Your task to perform on an android device: toggle notification dots Image 0: 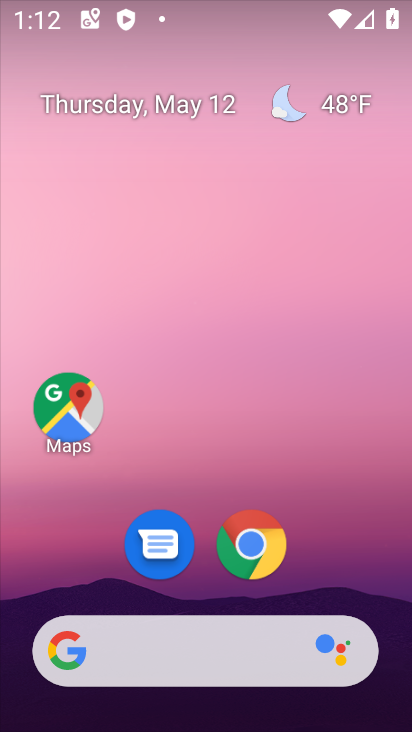
Step 0: drag from (325, 545) to (273, 0)
Your task to perform on an android device: toggle notification dots Image 1: 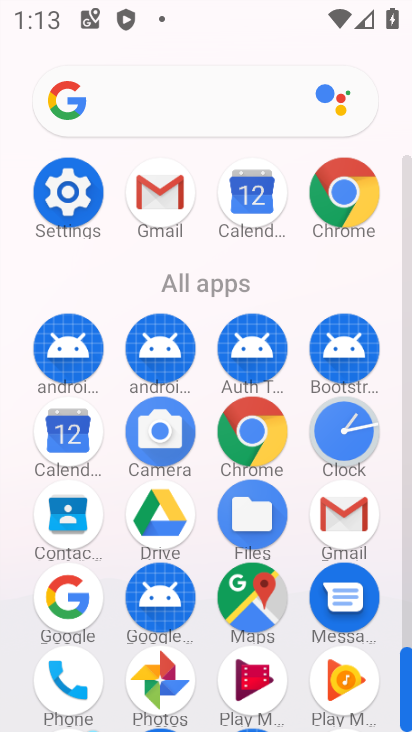
Step 1: drag from (31, 501) to (20, 238)
Your task to perform on an android device: toggle notification dots Image 2: 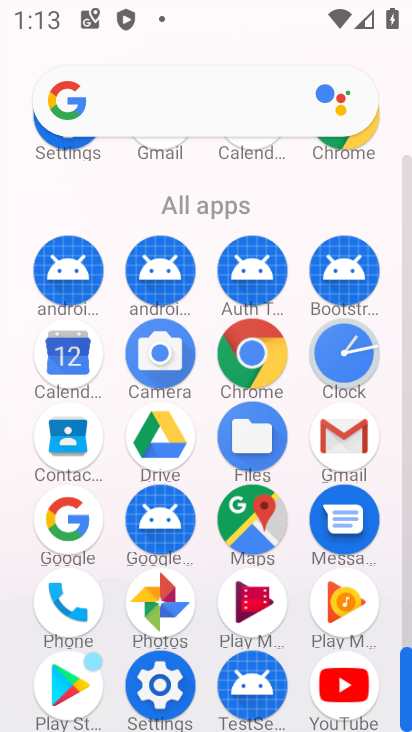
Step 2: drag from (26, 511) to (28, 244)
Your task to perform on an android device: toggle notification dots Image 3: 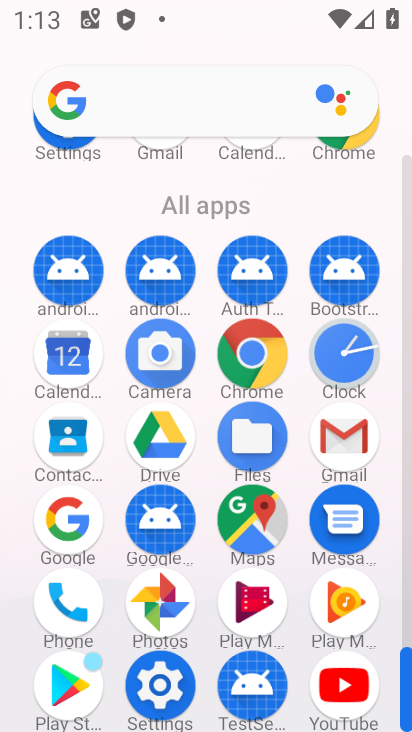
Step 3: click (158, 681)
Your task to perform on an android device: toggle notification dots Image 4: 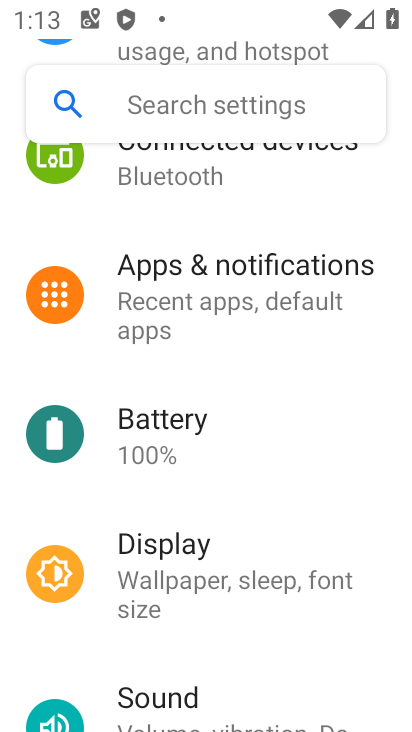
Step 4: drag from (293, 510) to (290, 189)
Your task to perform on an android device: toggle notification dots Image 5: 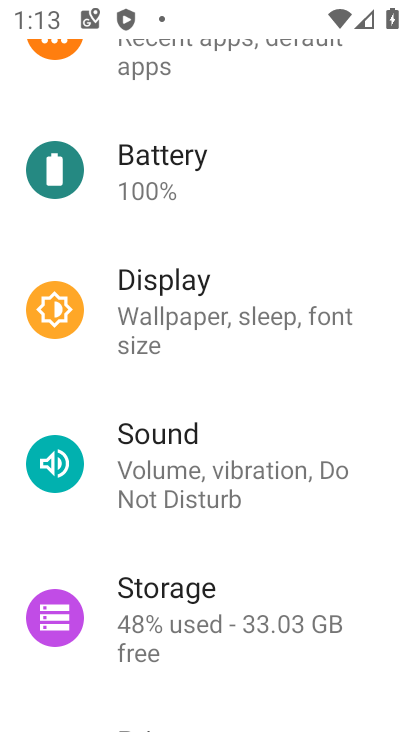
Step 5: drag from (290, 261) to (292, 439)
Your task to perform on an android device: toggle notification dots Image 6: 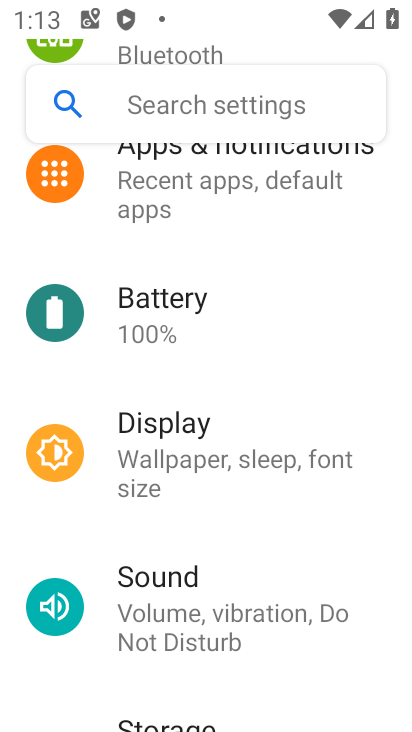
Step 6: click (279, 173)
Your task to perform on an android device: toggle notification dots Image 7: 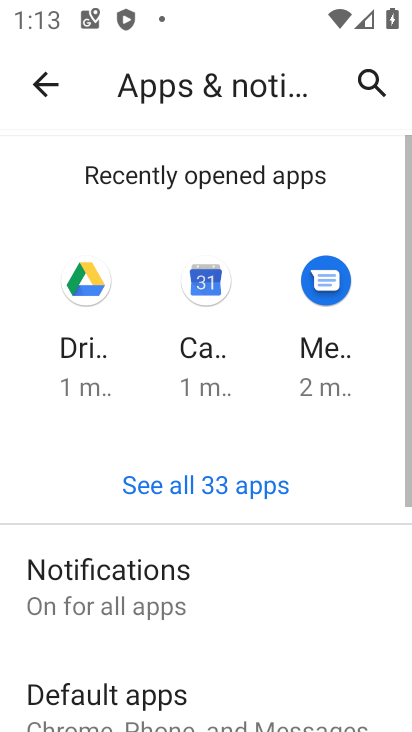
Step 7: click (188, 577)
Your task to perform on an android device: toggle notification dots Image 8: 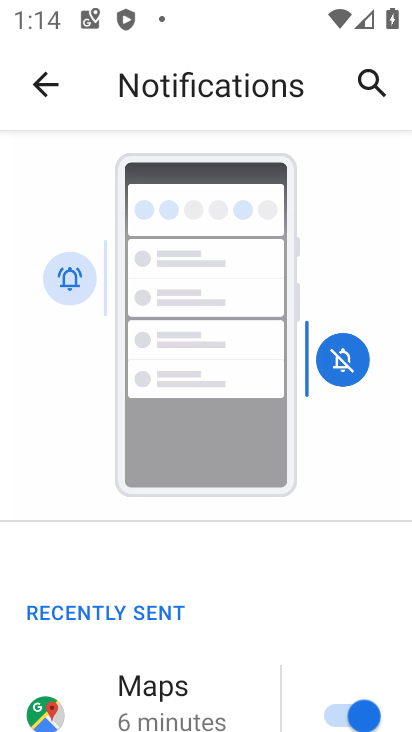
Step 8: drag from (227, 577) to (222, 95)
Your task to perform on an android device: toggle notification dots Image 9: 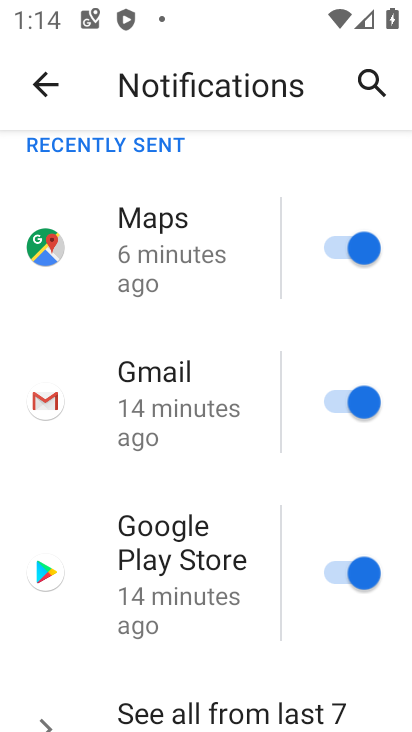
Step 9: drag from (157, 465) to (172, 293)
Your task to perform on an android device: toggle notification dots Image 10: 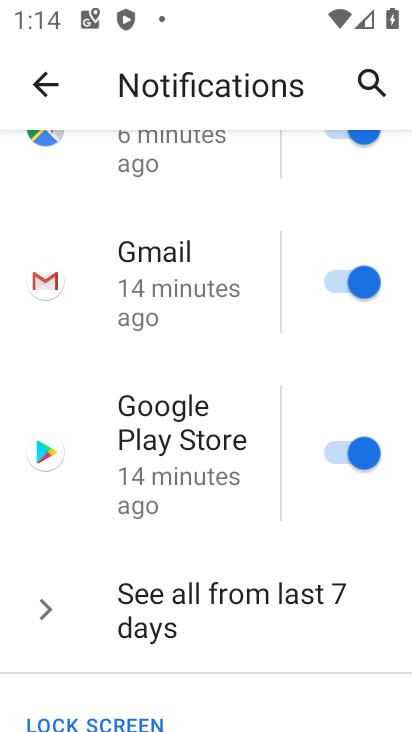
Step 10: drag from (176, 485) to (187, 177)
Your task to perform on an android device: toggle notification dots Image 11: 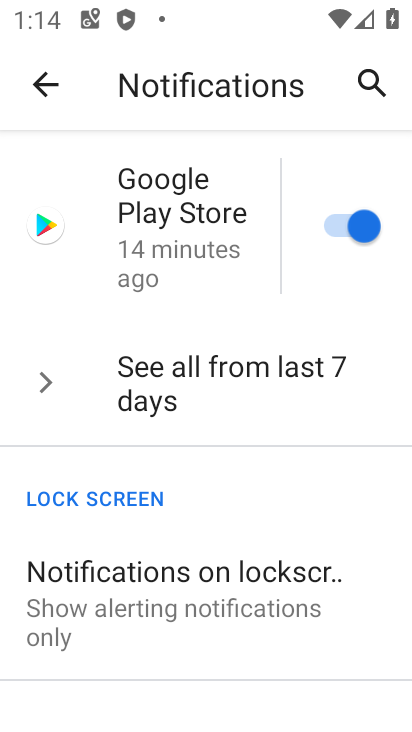
Step 11: drag from (194, 596) to (186, 116)
Your task to perform on an android device: toggle notification dots Image 12: 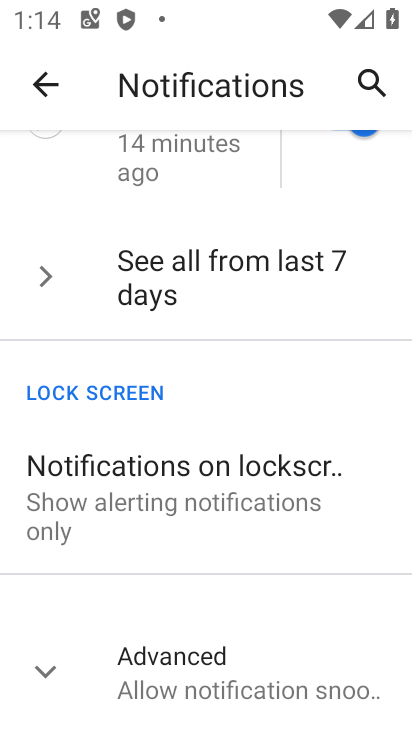
Step 12: click (53, 657)
Your task to perform on an android device: toggle notification dots Image 13: 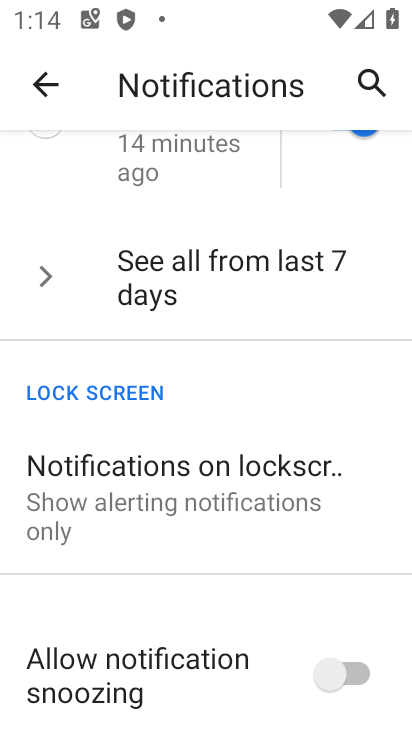
Step 13: drag from (179, 499) to (173, 199)
Your task to perform on an android device: toggle notification dots Image 14: 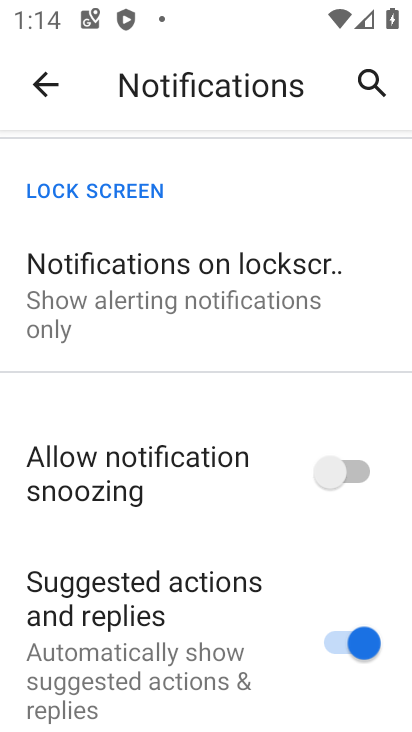
Step 14: drag from (138, 560) to (213, 231)
Your task to perform on an android device: toggle notification dots Image 15: 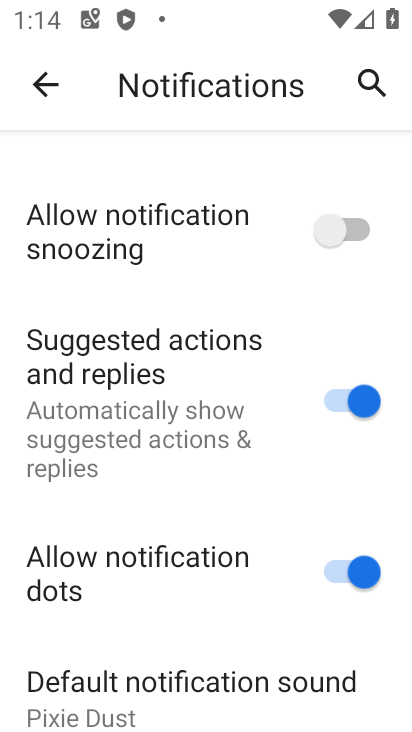
Step 15: click (328, 567)
Your task to perform on an android device: toggle notification dots Image 16: 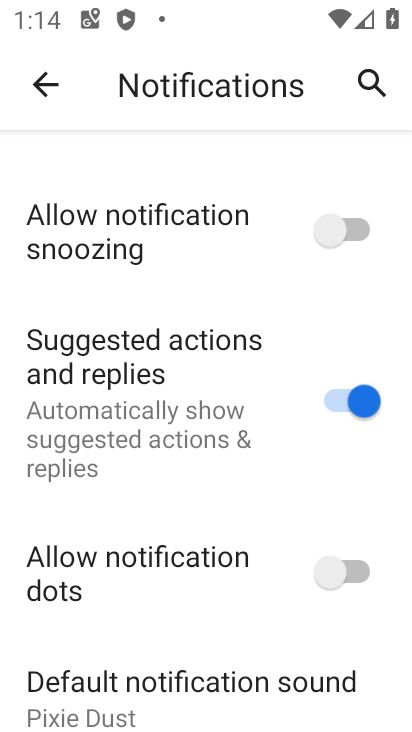
Step 16: task complete